Your task to perform on an android device: Is it going to rain this weekend? Image 0: 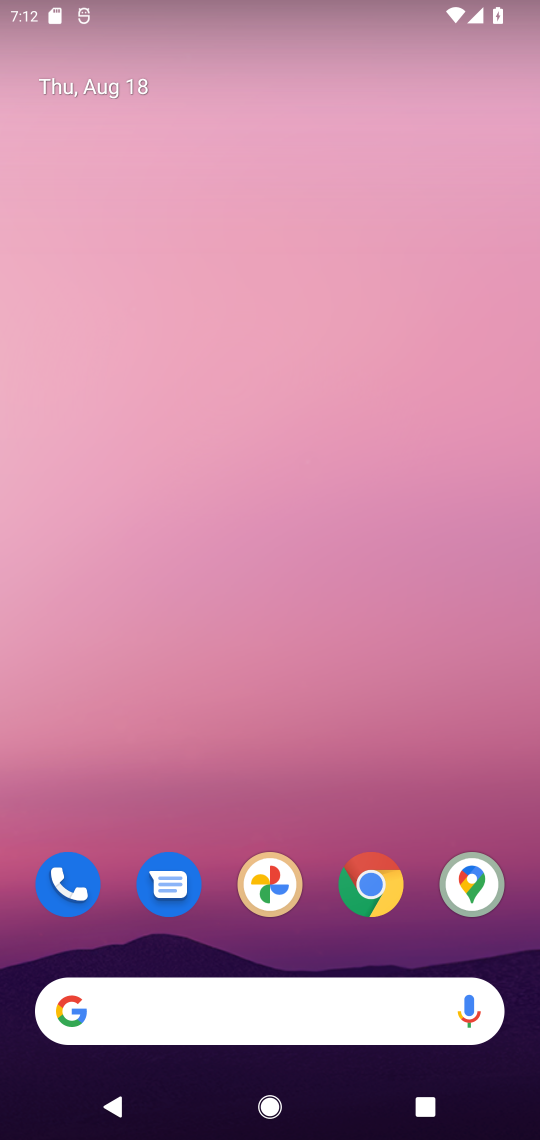
Step 0: click (109, 96)
Your task to perform on an android device: Is it going to rain this weekend? Image 1: 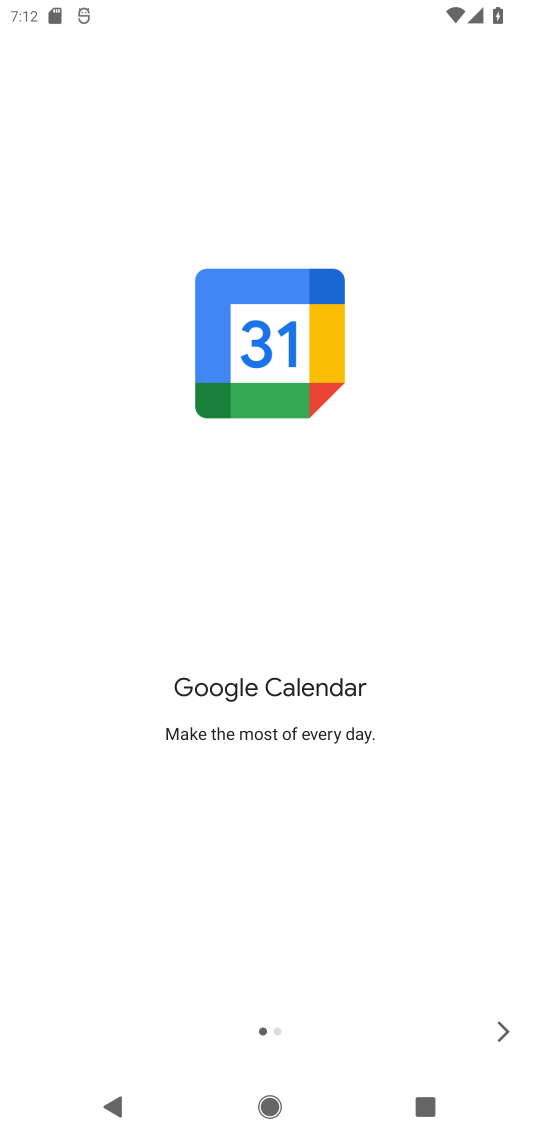
Step 1: click (501, 1044)
Your task to perform on an android device: Is it going to rain this weekend? Image 2: 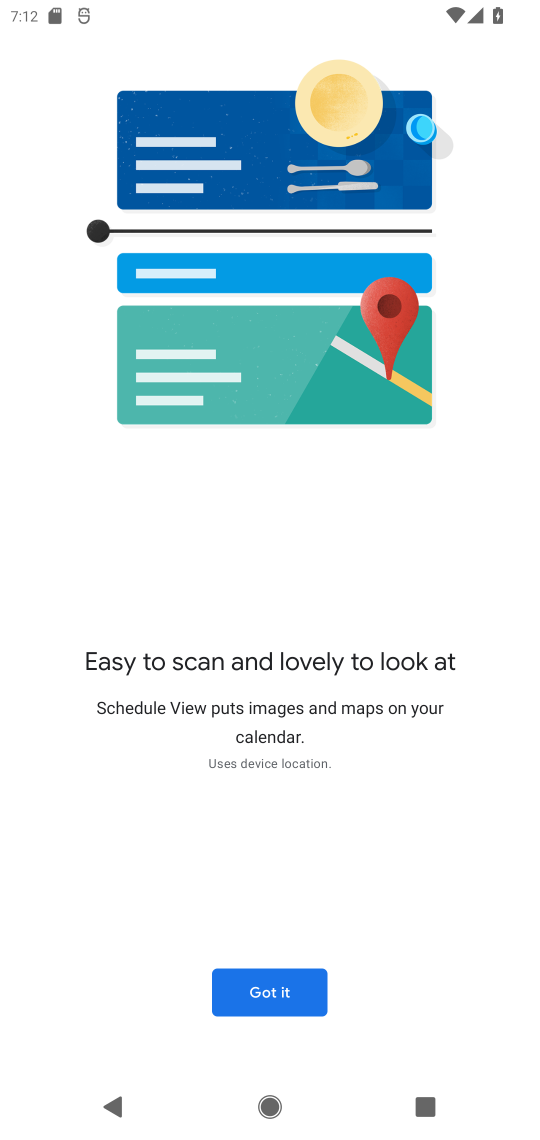
Step 2: click (272, 1001)
Your task to perform on an android device: Is it going to rain this weekend? Image 3: 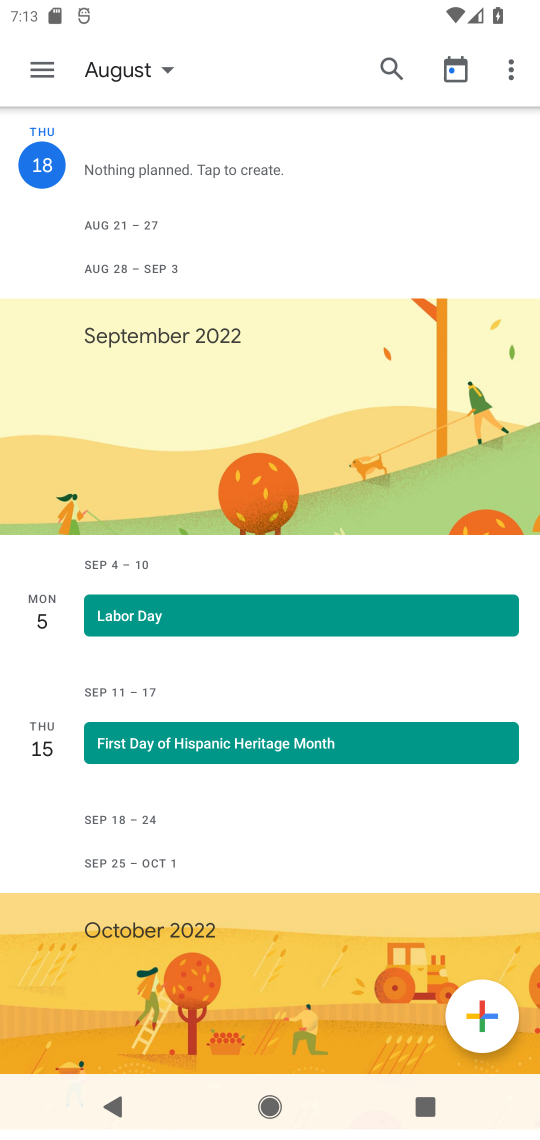
Step 3: drag from (218, 4) to (237, 953)
Your task to perform on an android device: Is it going to rain this weekend? Image 4: 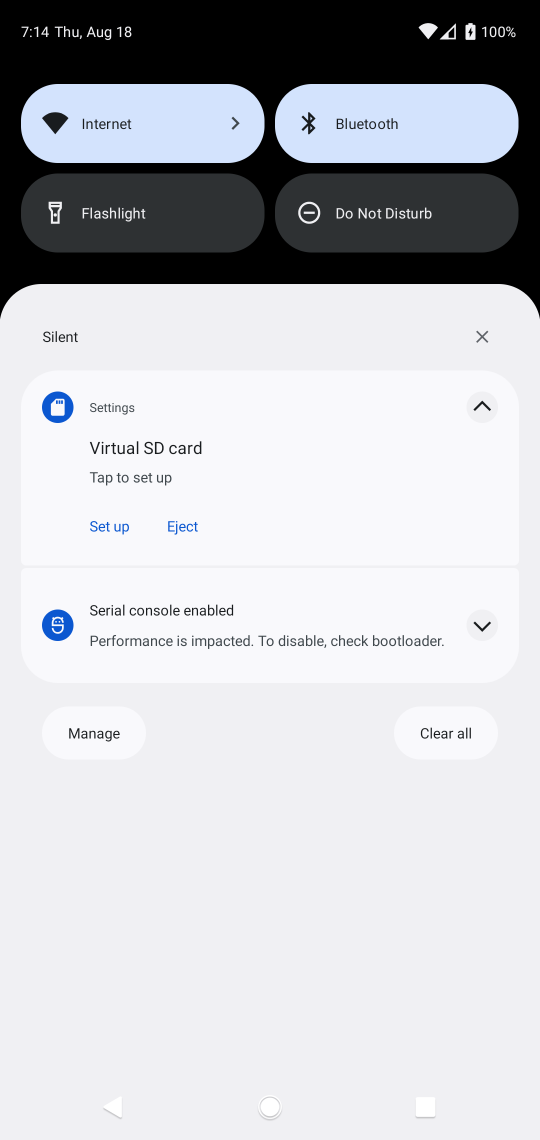
Step 4: press home button
Your task to perform on an android device: Is it going to rain this weekend? Image 5: 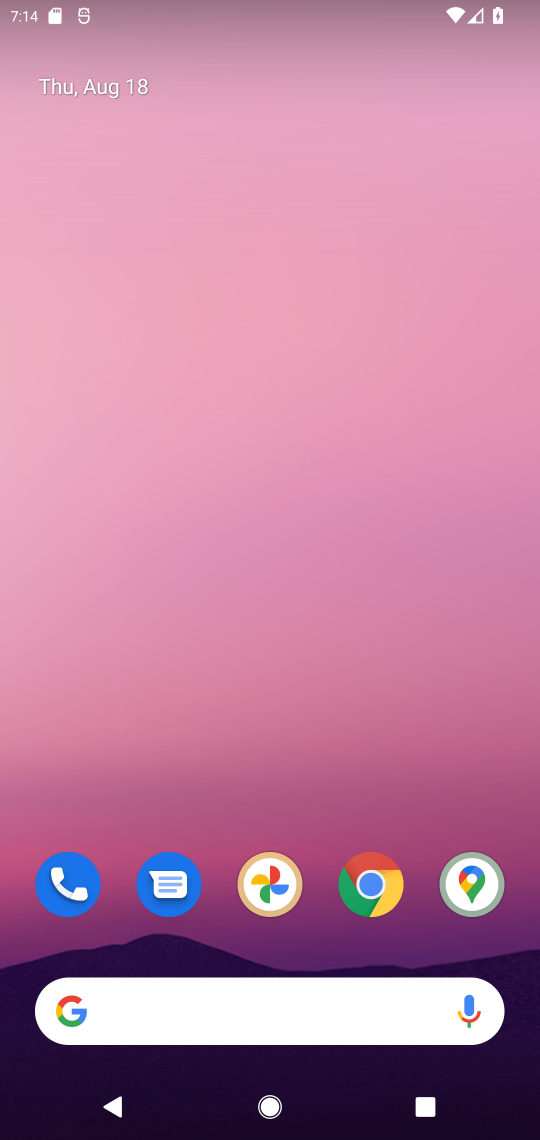
Step 5: click (271, 1017)
Your task to perform on an android device: Is it going to rain this weekend? Image 6: 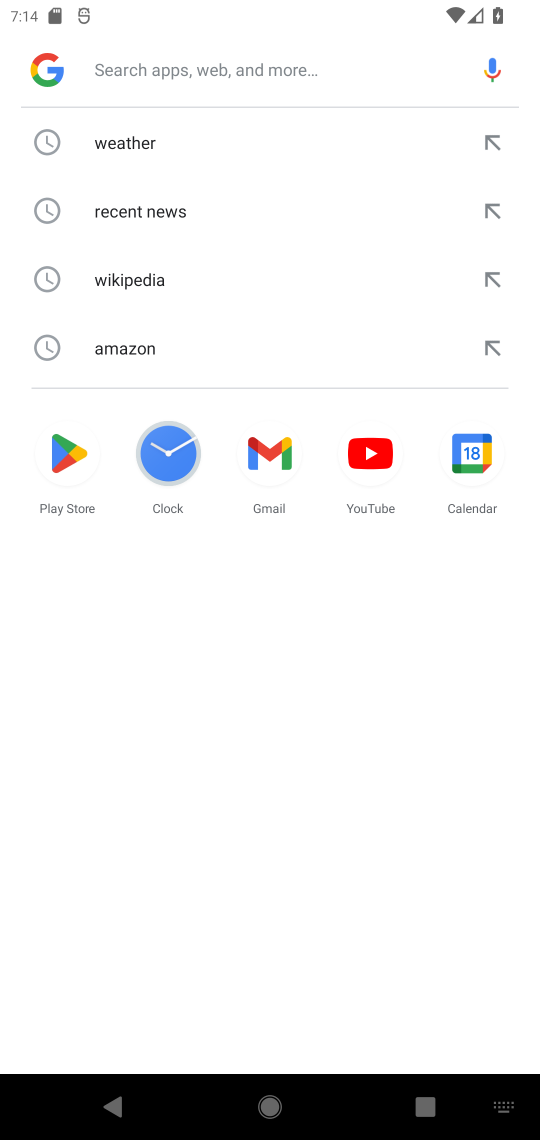
Step 6: click (164, 148)
Your task to perform on an android device: Is it going to rain this weekend? Image 7: 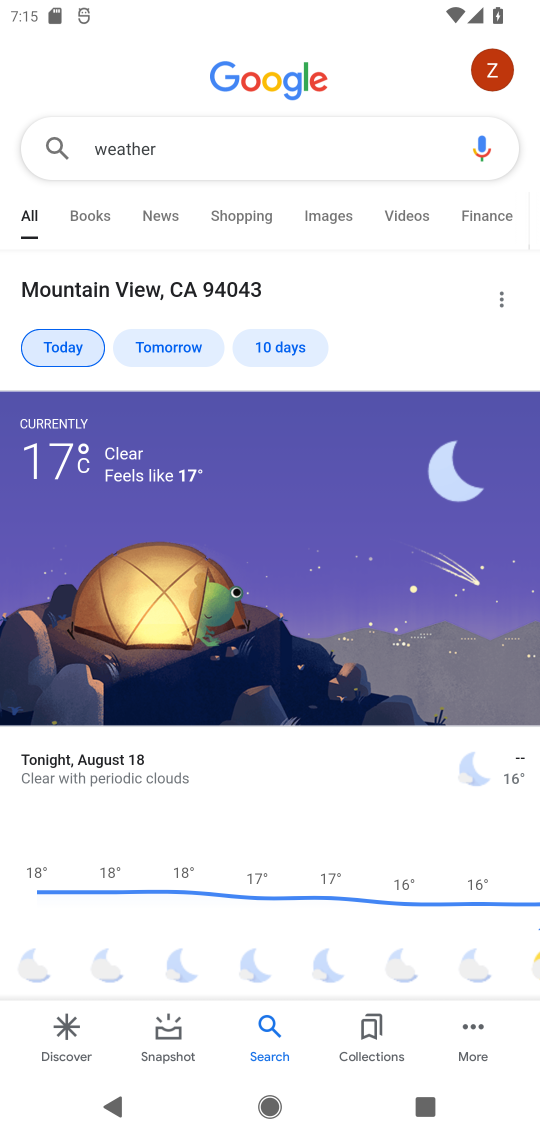
Step 7: drag from (117, 900) to (152, 312)
Your task to perform on an android device: Is it going to rain this weekend? Image 8: 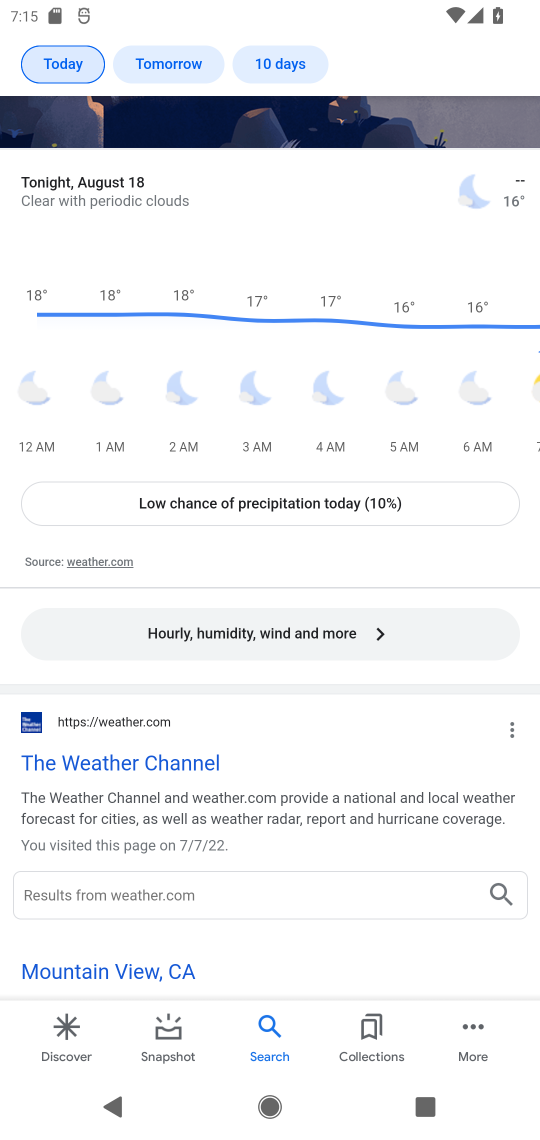
Step 8: click (264, 56)
Your task to perform on an android device: Is it going to rain this weekend? Image 9: 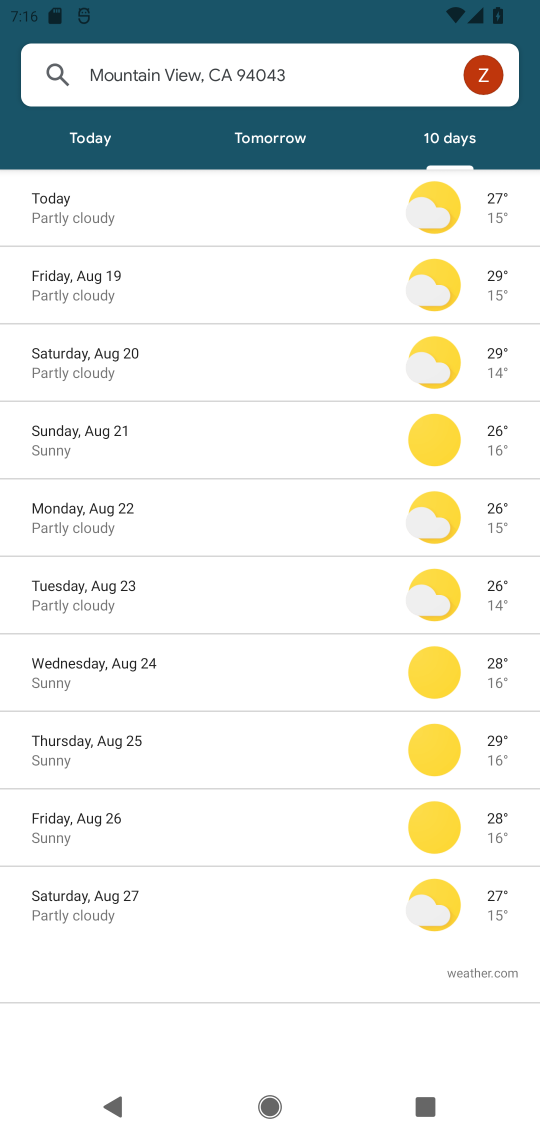
Step 9: click (132, 359)
Your task to perform on an android device: Is it going to rain this weekend? Image 10: 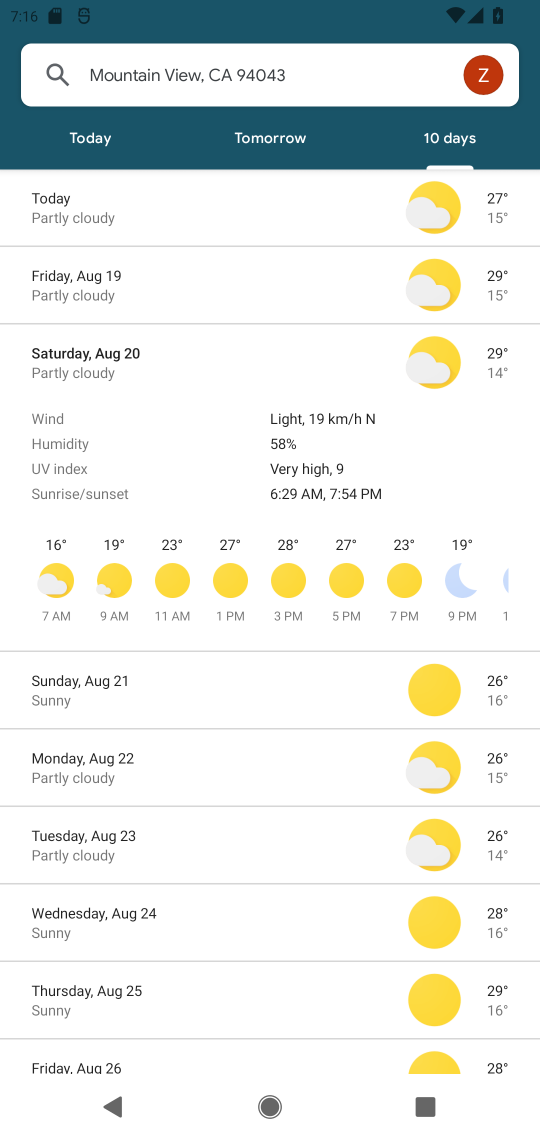
Step 10: task complete